Your task to perform on an android device: See recent photos Image 0: 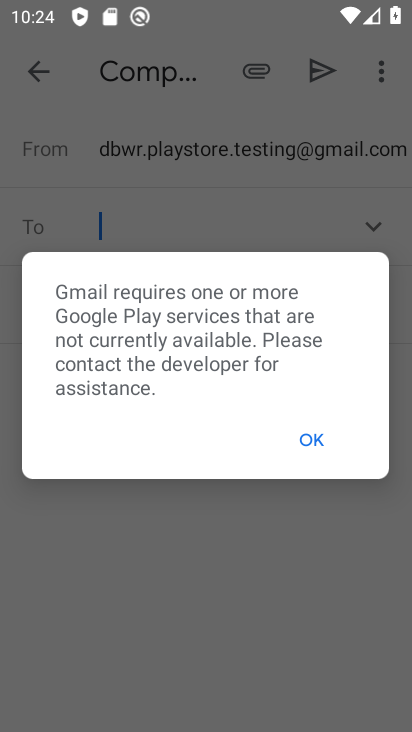
Step 0: click (306, 437)
Your task to perform on an android device: See recent photos Image 1: 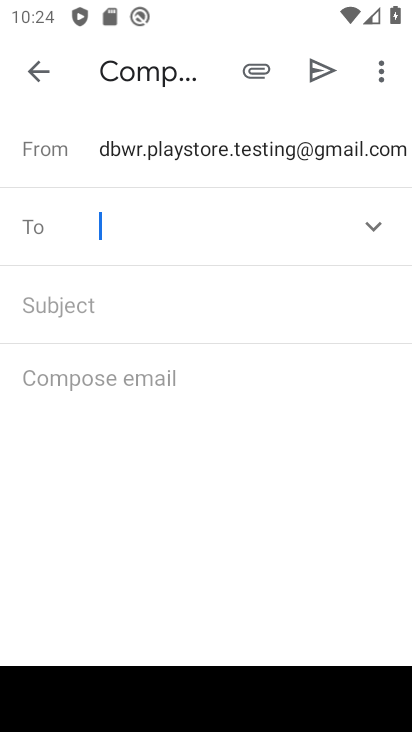
Step 1: press back button
Your task to perform on an android device: See recent photos Image 2: 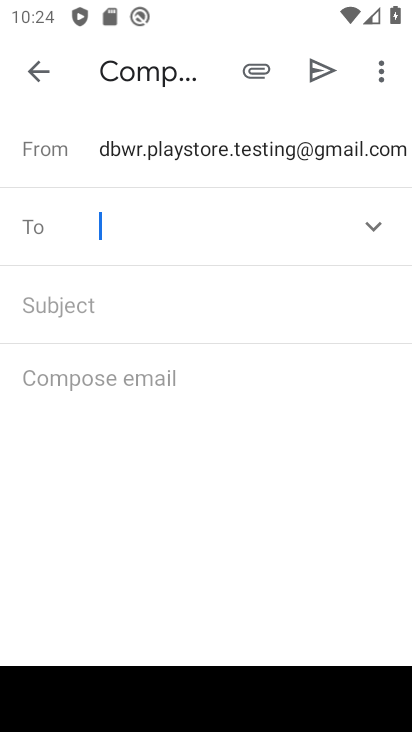
Step 2: press back button
Your task to perform on an android device: See recent photos Image 3: 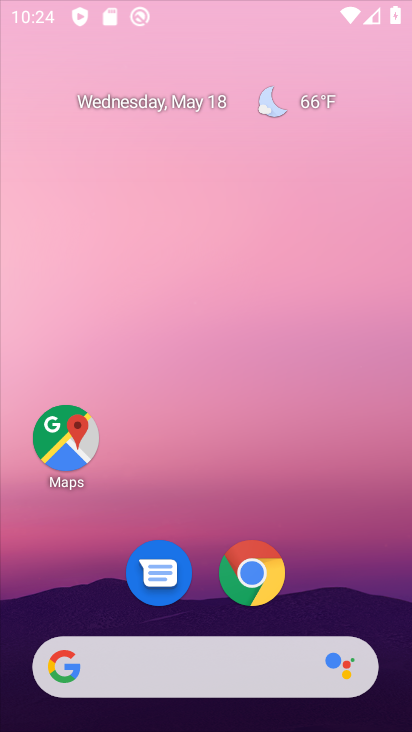
Step 3: press back button
Your task to perform on an android device: See recent photos Image 4: 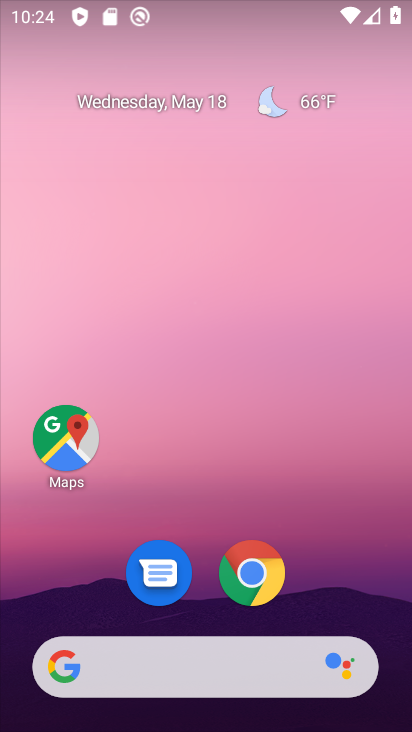
Step 4: drag from (15, 219) to (325, 353)
Your task to perform on an android device: See recent photos Image 5: 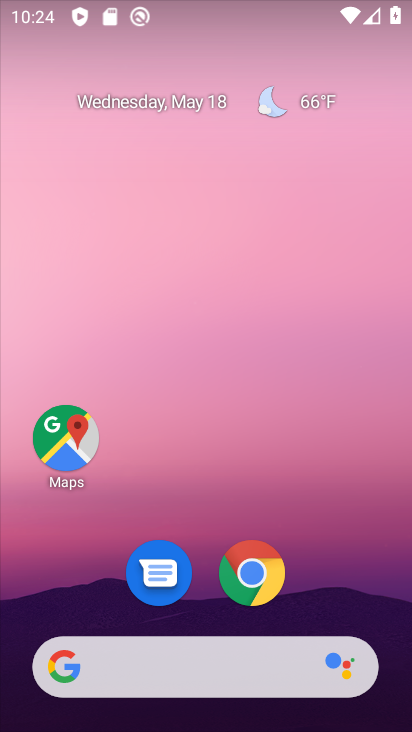
Step 5: drag from (355, 629) to (153, 0)
Your task to perform on an android device: See recent photos Image 6: 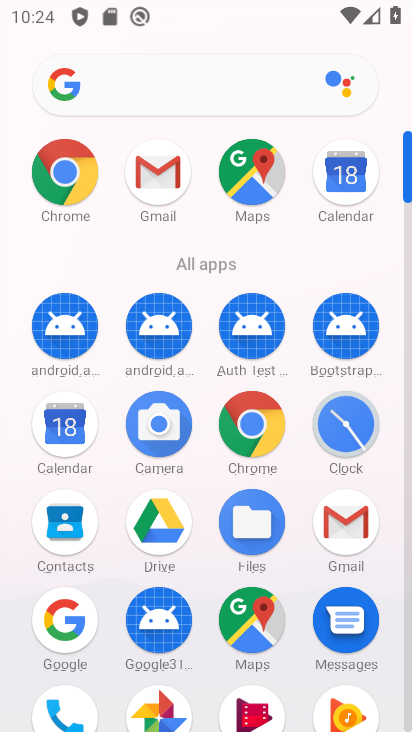
Step 6: drag from (181, 521) to (130, 140)
Your task to perform on an android device: See recent photos Image 7: 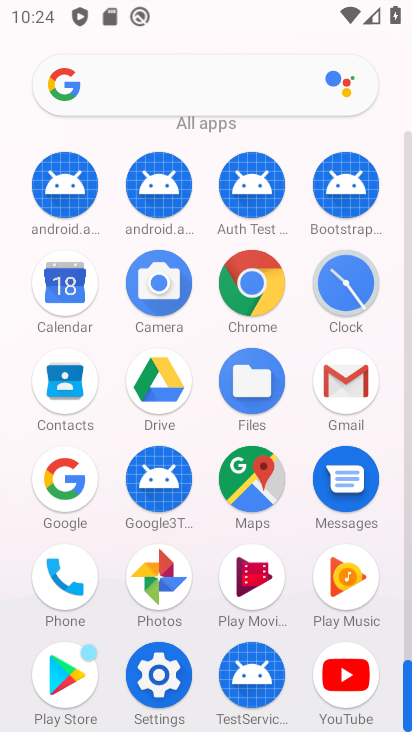
Step 7: drag from (150, 392) to (146, 68)
Your task to perform on an android device: See recent photos Image 8: 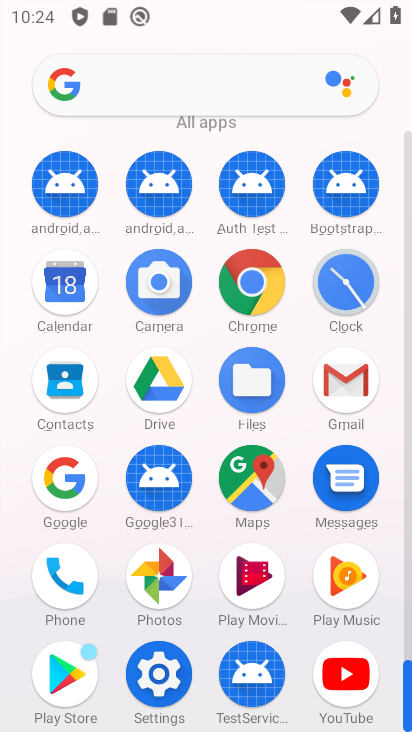
Step 8: click (149, 576)
Your task to perform on an android device: See recent photos Image 9: 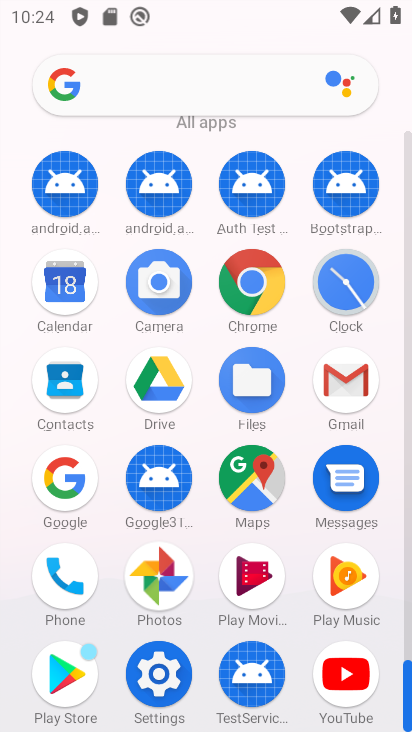
Step 9: click (149, 576)
Your task to perform on an android device: See recent photos Image 10: 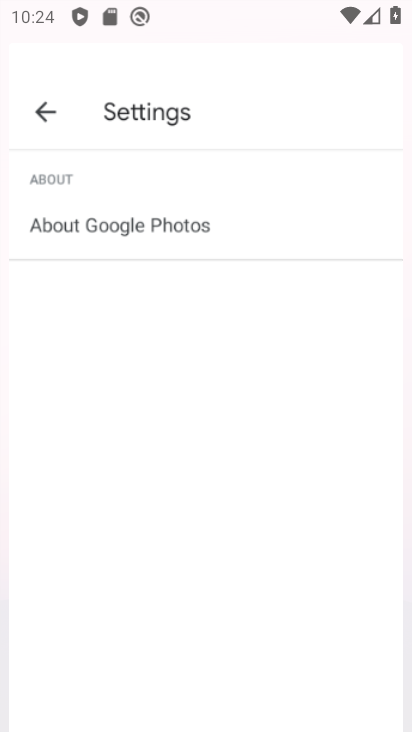
Step 10: click (150, 576)
Your task to perform on an android device: See recent photos Image 11: 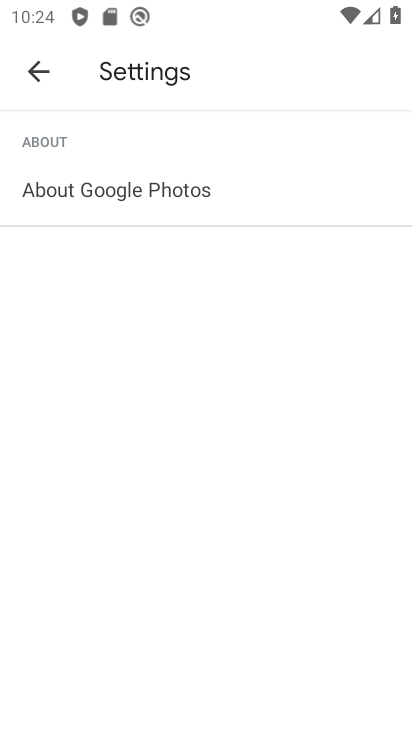
Step 11: click (157, 572)
Your task to perform on an android device: See recent photos Image 12: 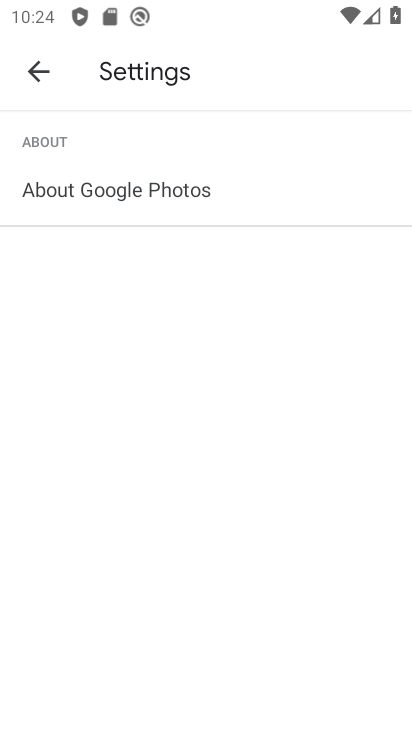
Step 12: click (28, 72)
Your task to perform on an android device: See recent photos Image 13: 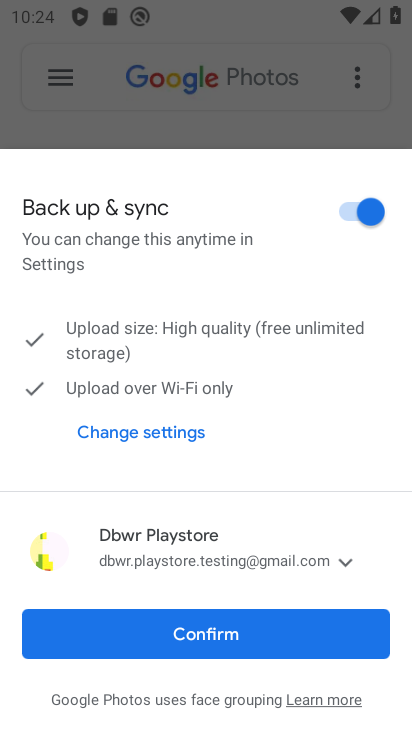
Step 13: click (199, 637)
Your task to perform on an android device: See recent photos Image 14: 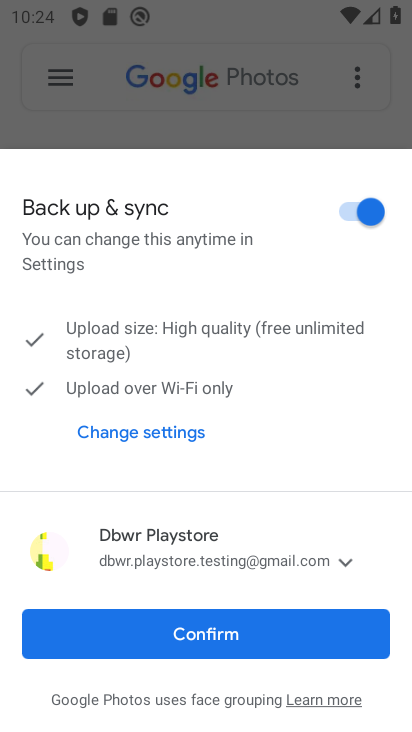
Step 14: click (199, 633)
Your task to perform on an android device: See recent photos Image 15: 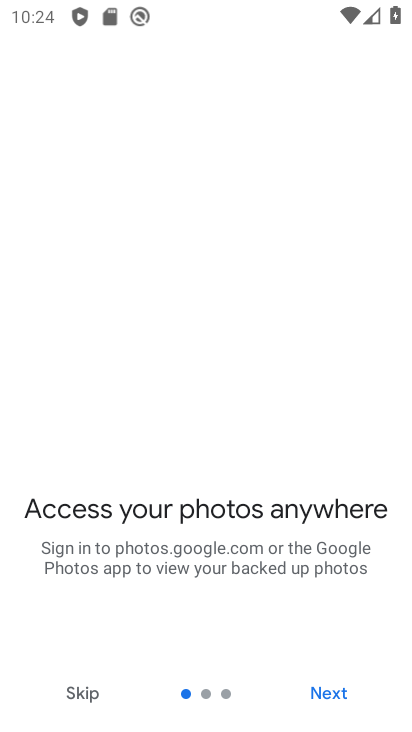
Step 15: click (321, 690)
Your task to perform on an android device: See recent photos Image 16: 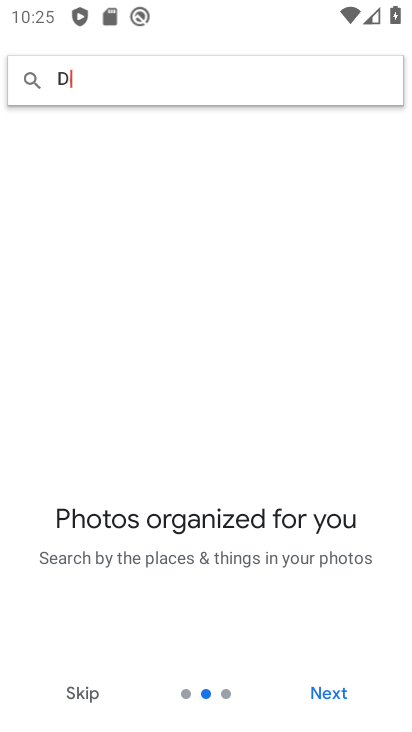
Step 16: click (327, 696)
Your task to perform on an android device: See recent photos Image 17: 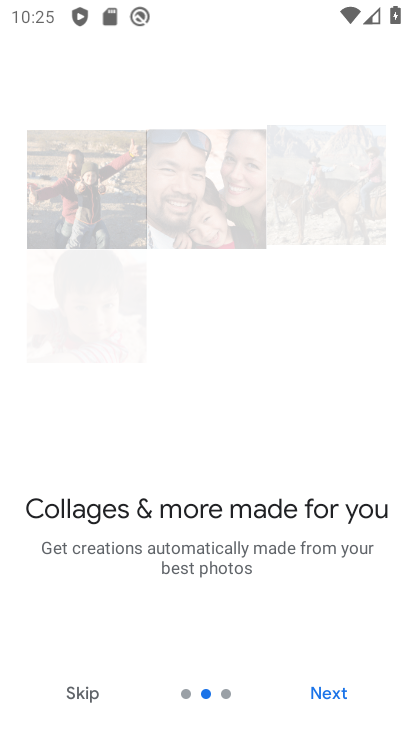
Step 17: click (325, 673)
Your task to perform on an android device: See recent photos Image 18: 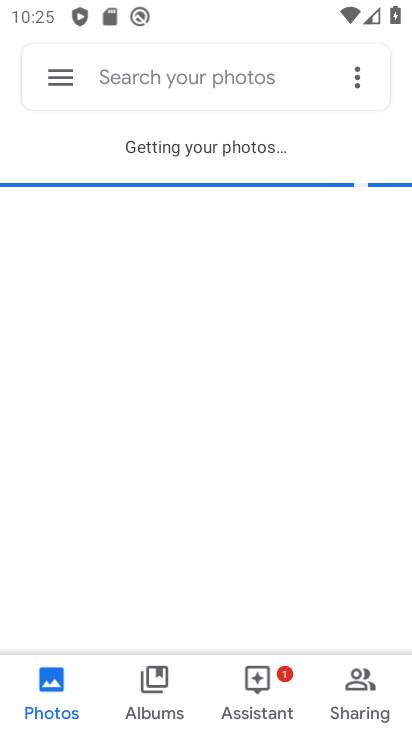
Step 18: task complete